Your task to perform on an android device: Open the calendar and show me this week's events? Image 0: 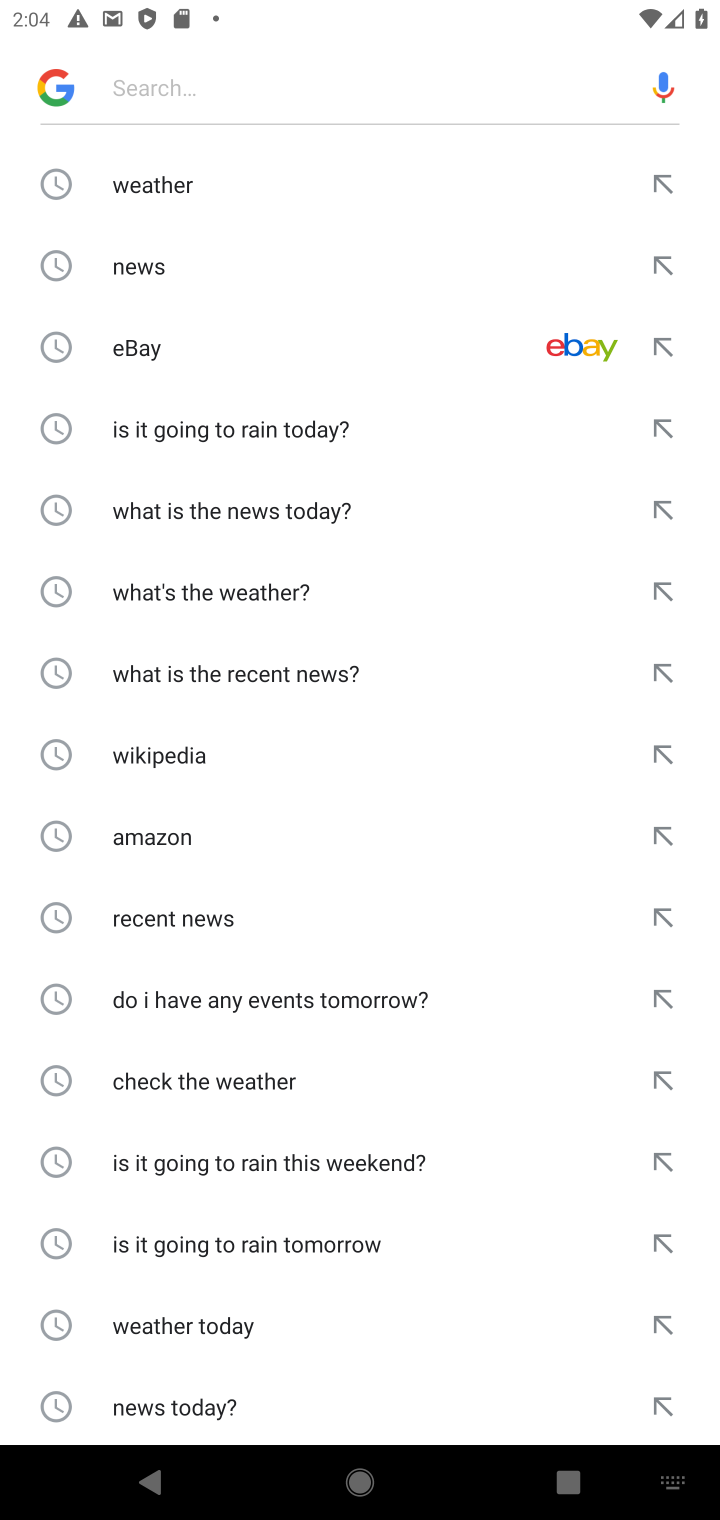
Step 0: press home button
Your task to perform on an android device: Open the calendar and show me this week's events? Image 1: 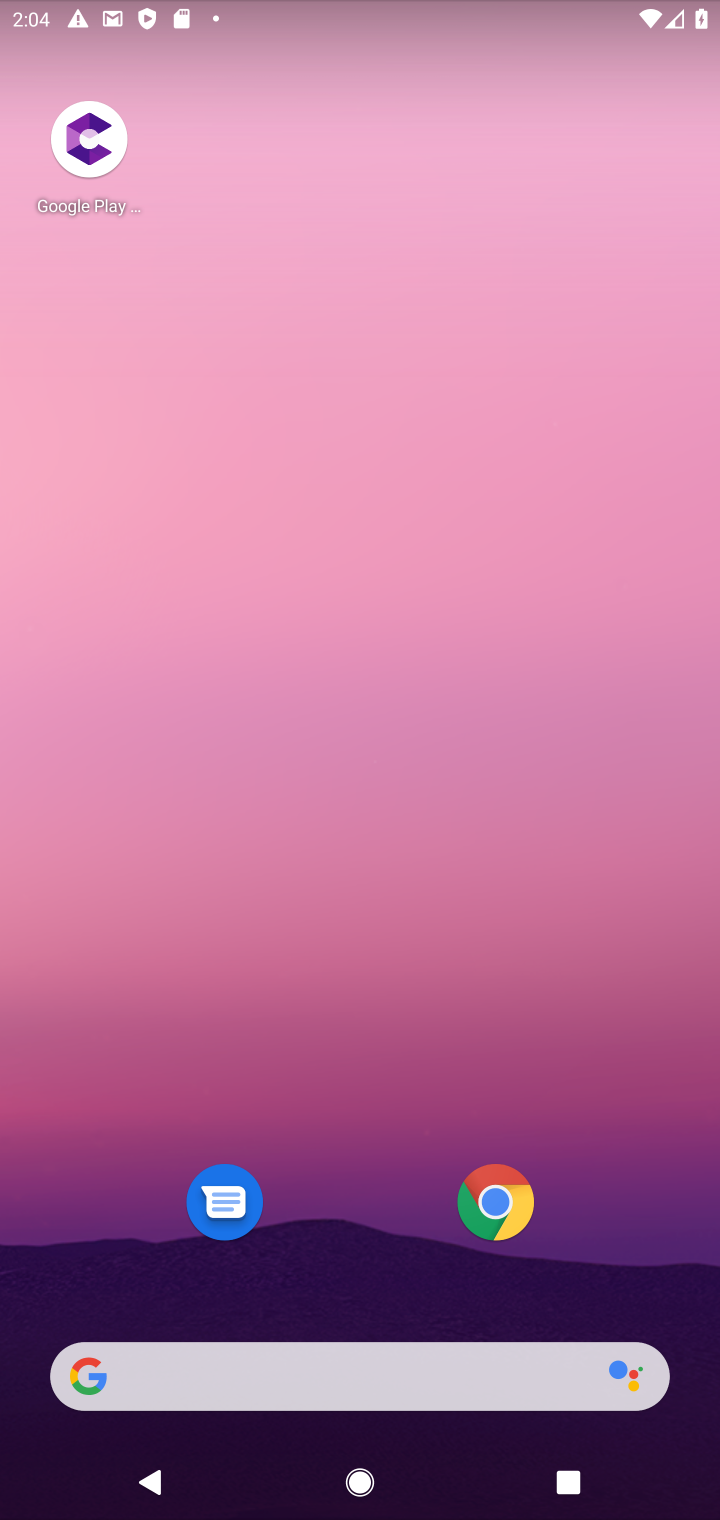
Step 1: drag from (328, 952) to (366, 6)
Your task to perform on an android device: Open the calendar and show me this week's events? Image 2: 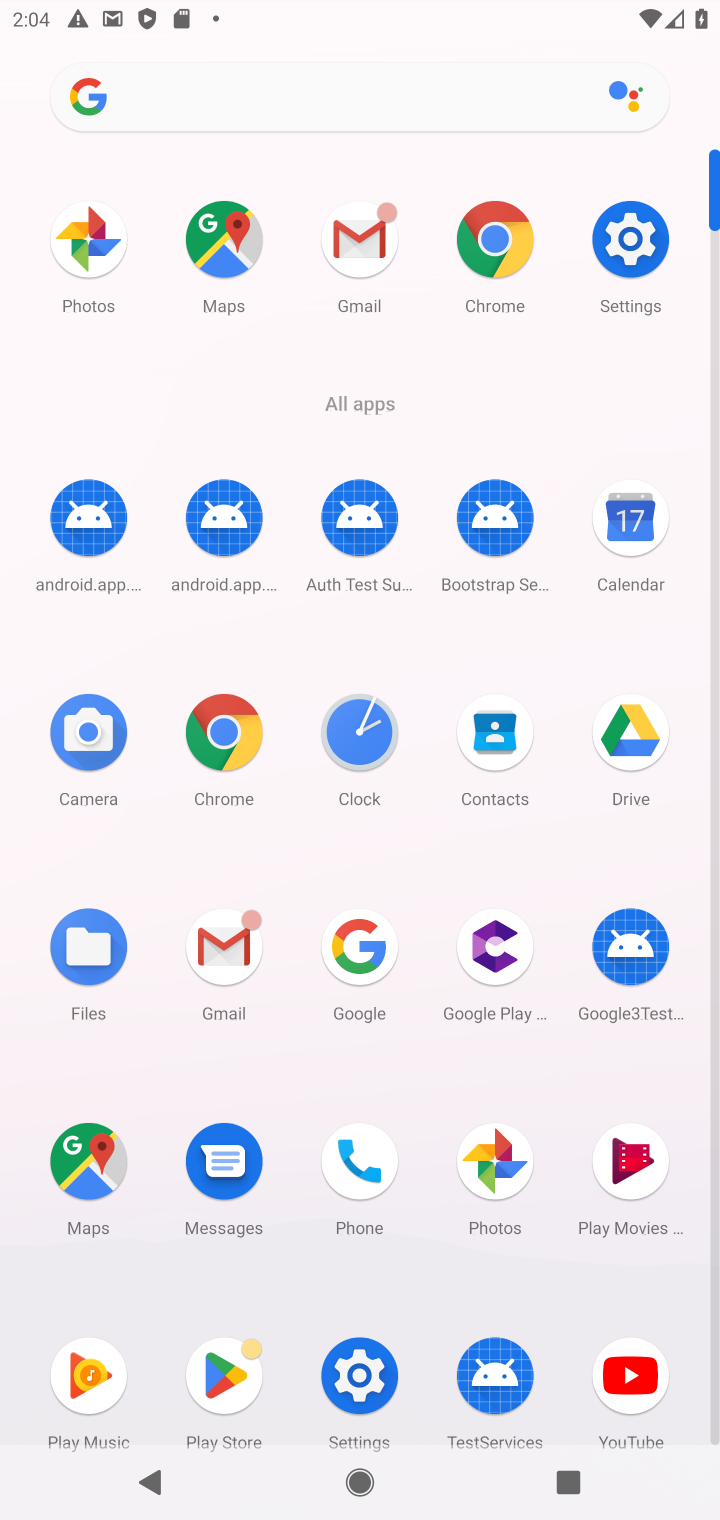
Step 2: click (642, 556)
Your task to perform on an android device: Open the calendar and show me this week's events? Image 3: 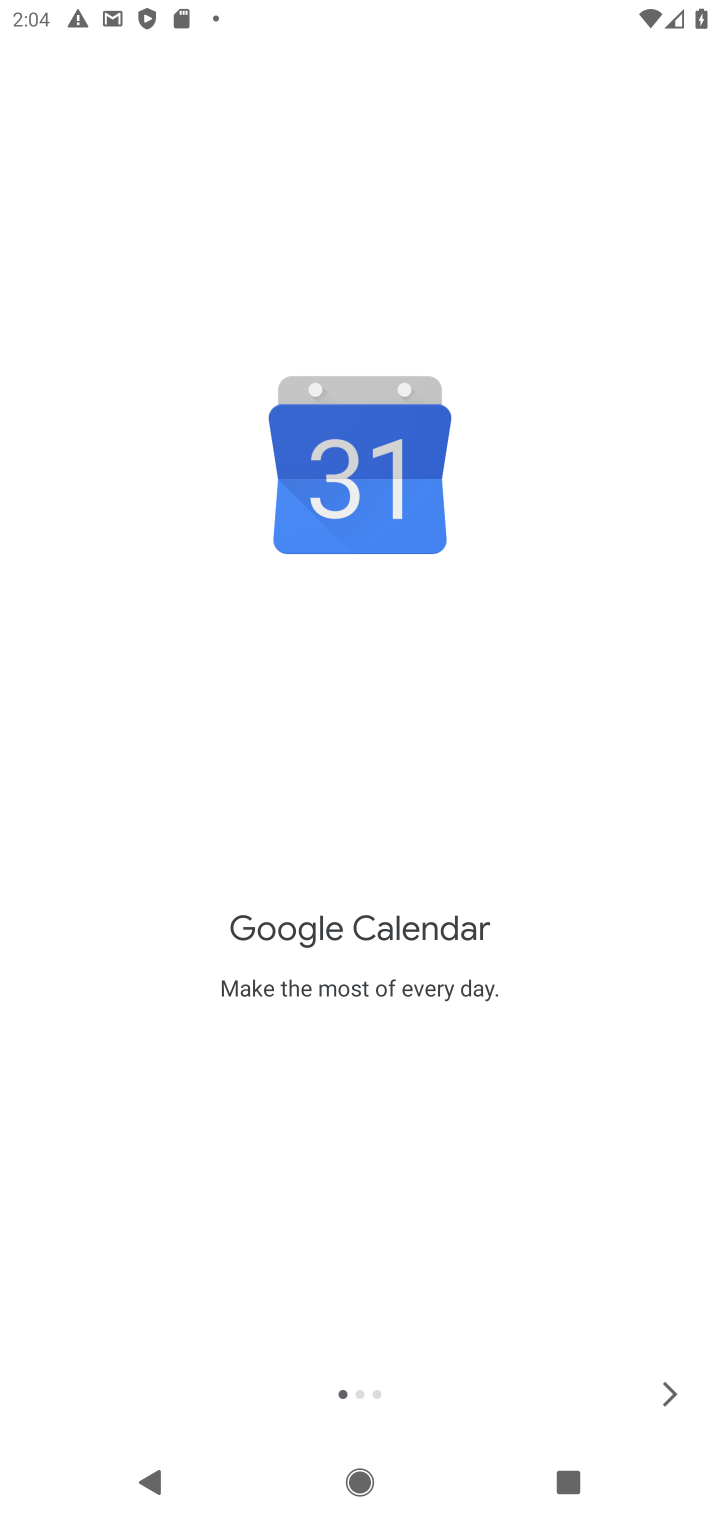
Step 3: click (637, 554)
Your task to perform on an android device: Open the calendar and show me this week's events? Image 4: 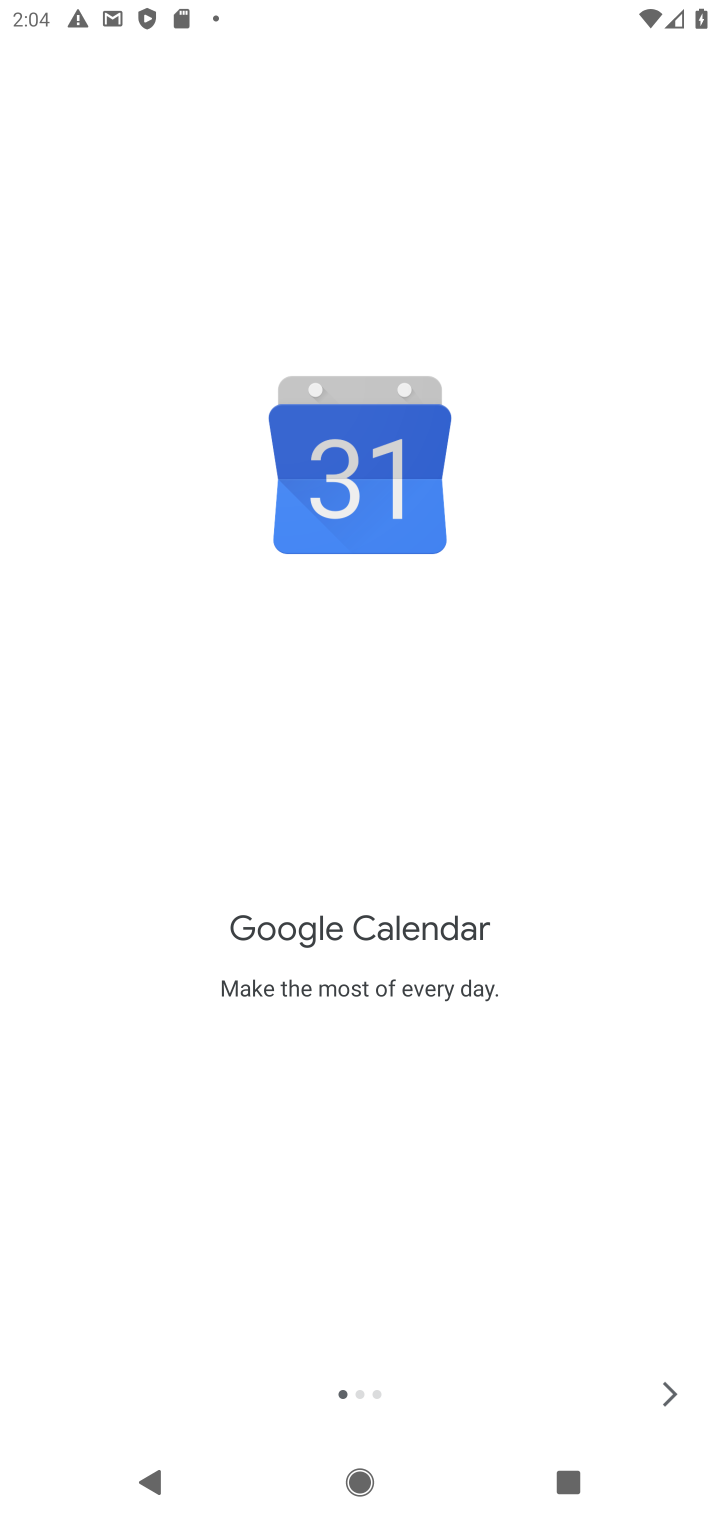
Step 4: click (657, 1366)
Your task to perform on an android device: Open the calendar and show me this week's events? Image 5: 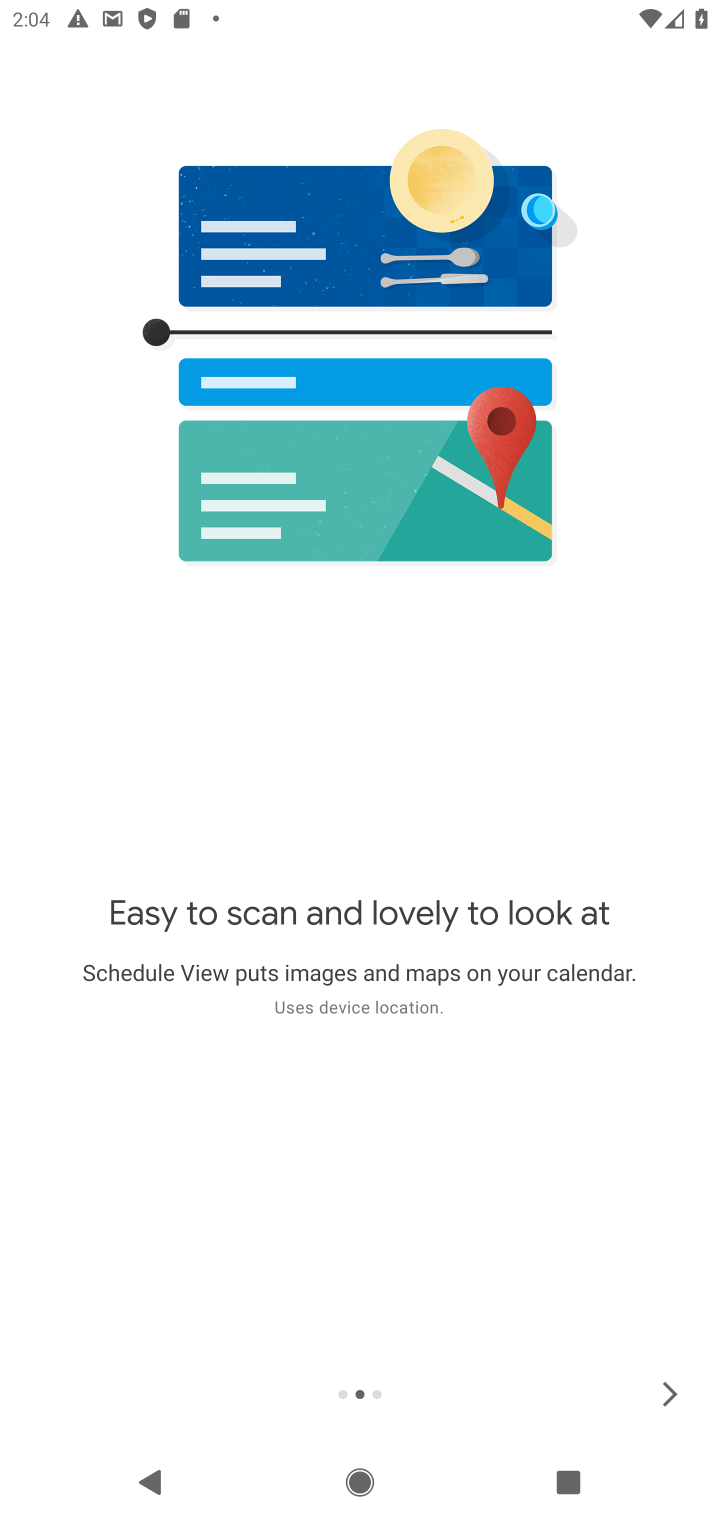
Step 5: click (650, 1373)
Your task to perform on an android device: Open the calendar and show me this week's events? Image 6: 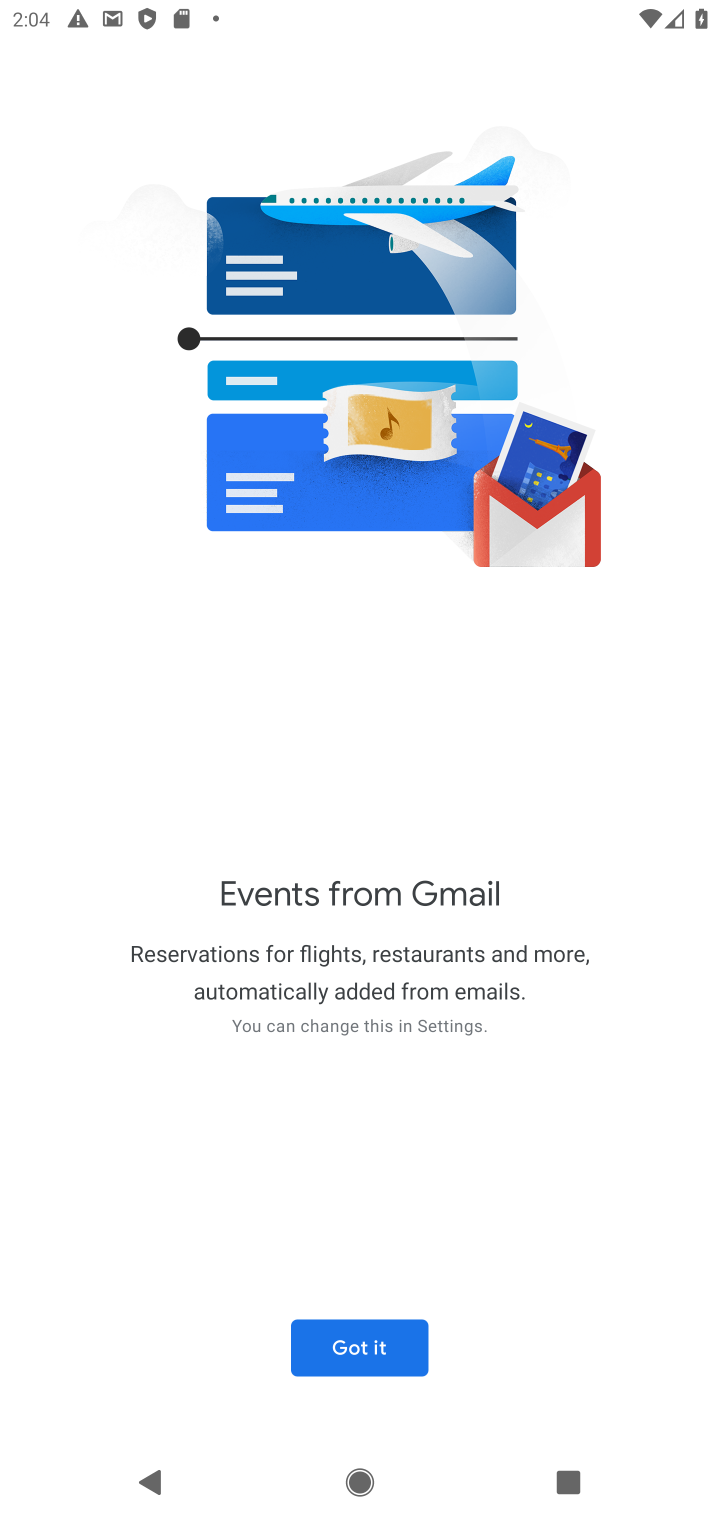
Step 6: click (394, 1351)
Your task to perform on an android device: Open the calendar and show me this week's events? Image 7: 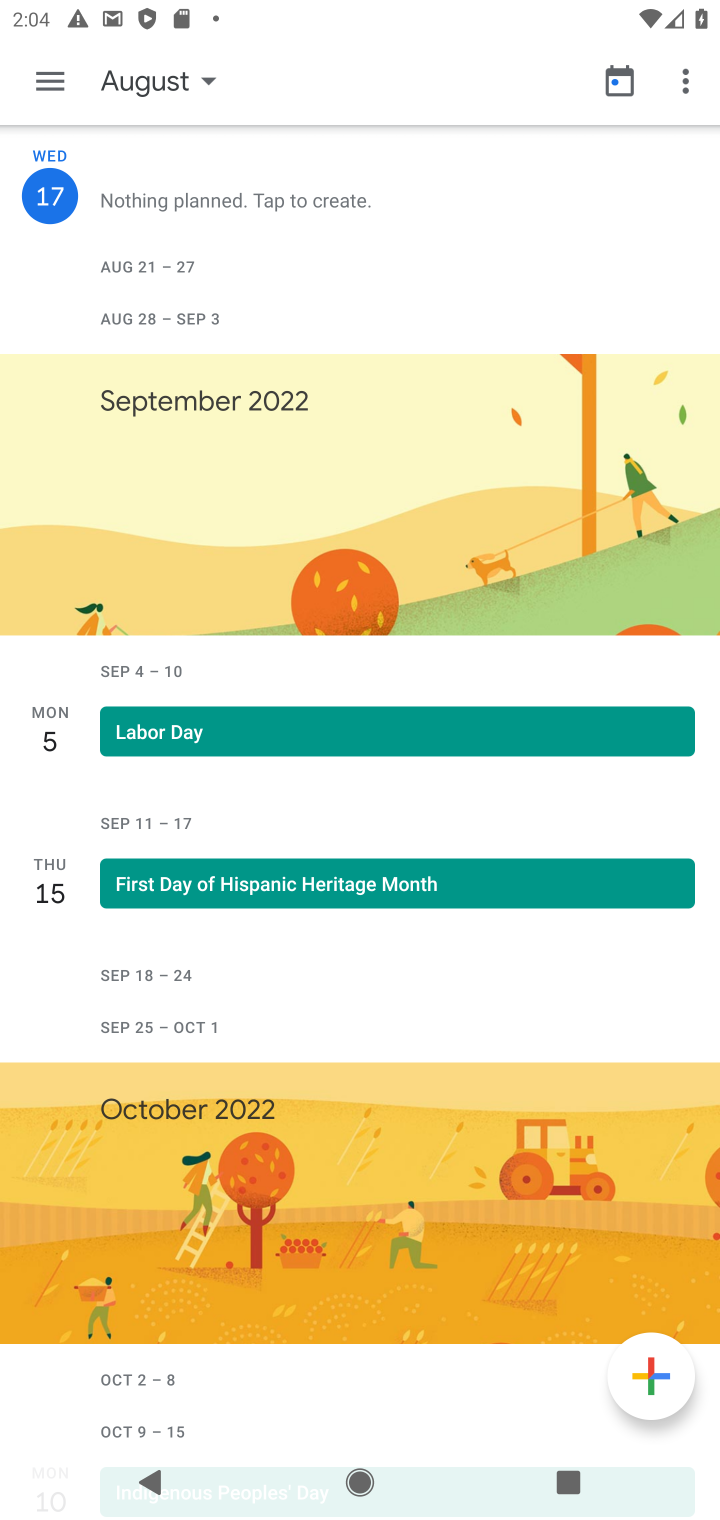
Step 7: click (47, 74)
Your task to perform on an android device: Open the calendar and show me this week's events? Image 8: 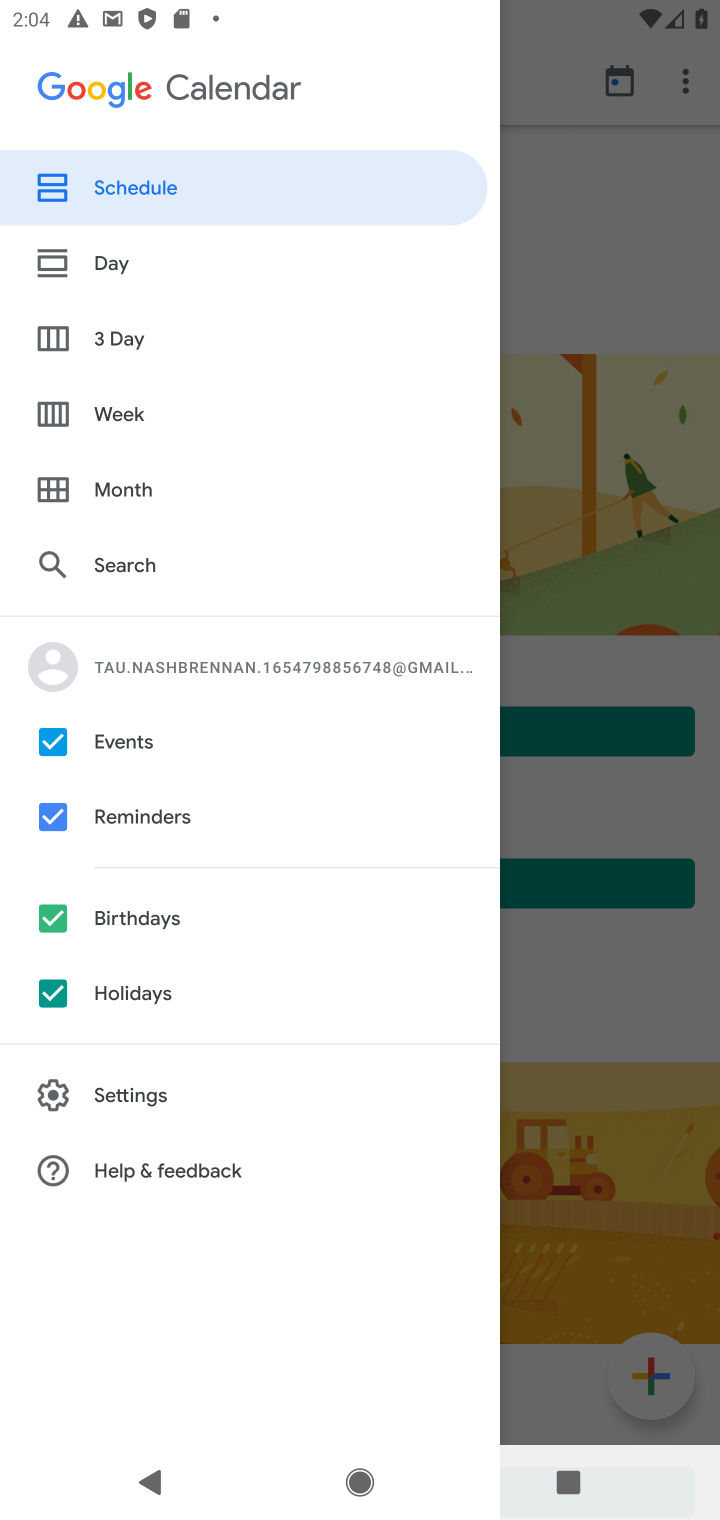
Step 8: click (106, 805)
Your task to perform on an android device: Open the calendar and show me this week's events? Image 9: 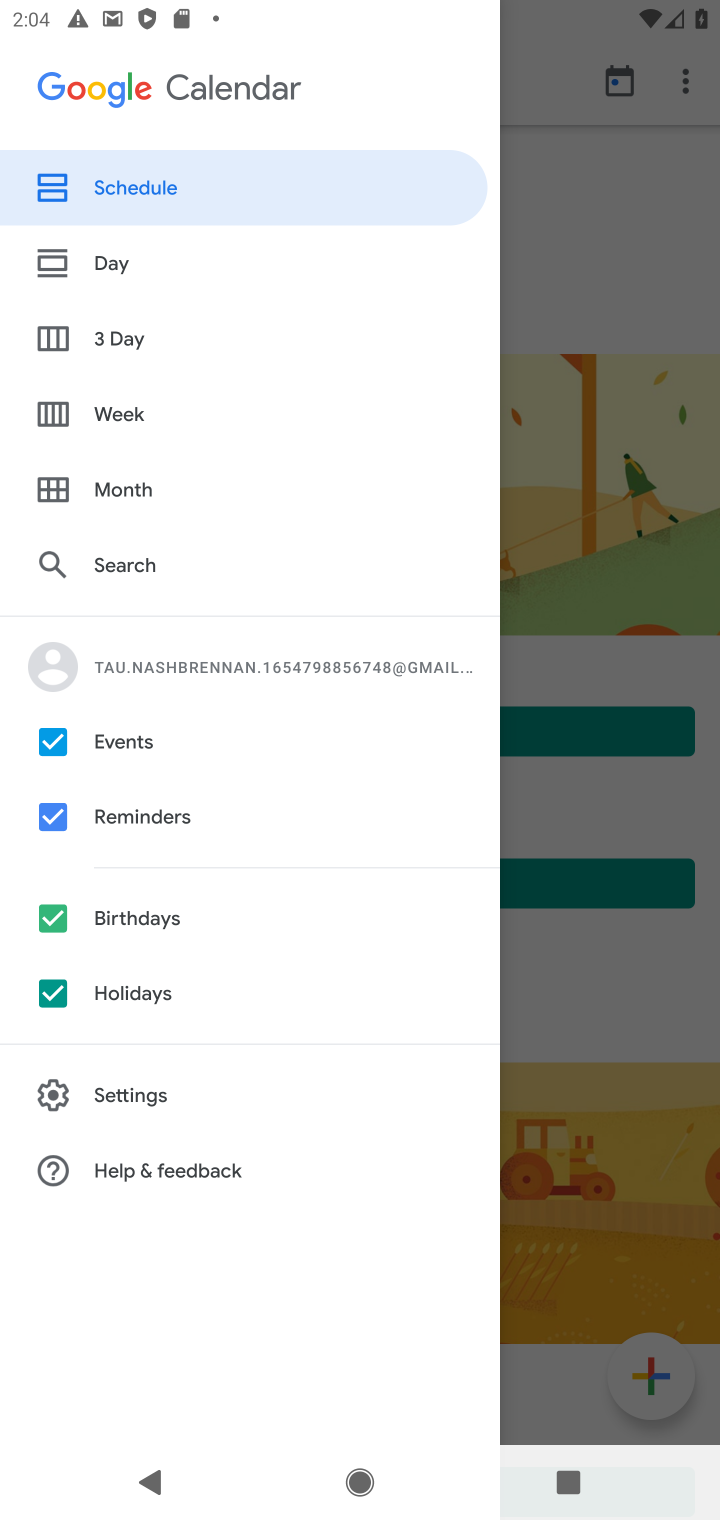
Step 9: click (138, 917)
Your task to perform on an android device: Open the calendar and show me this week's events? Image 10: 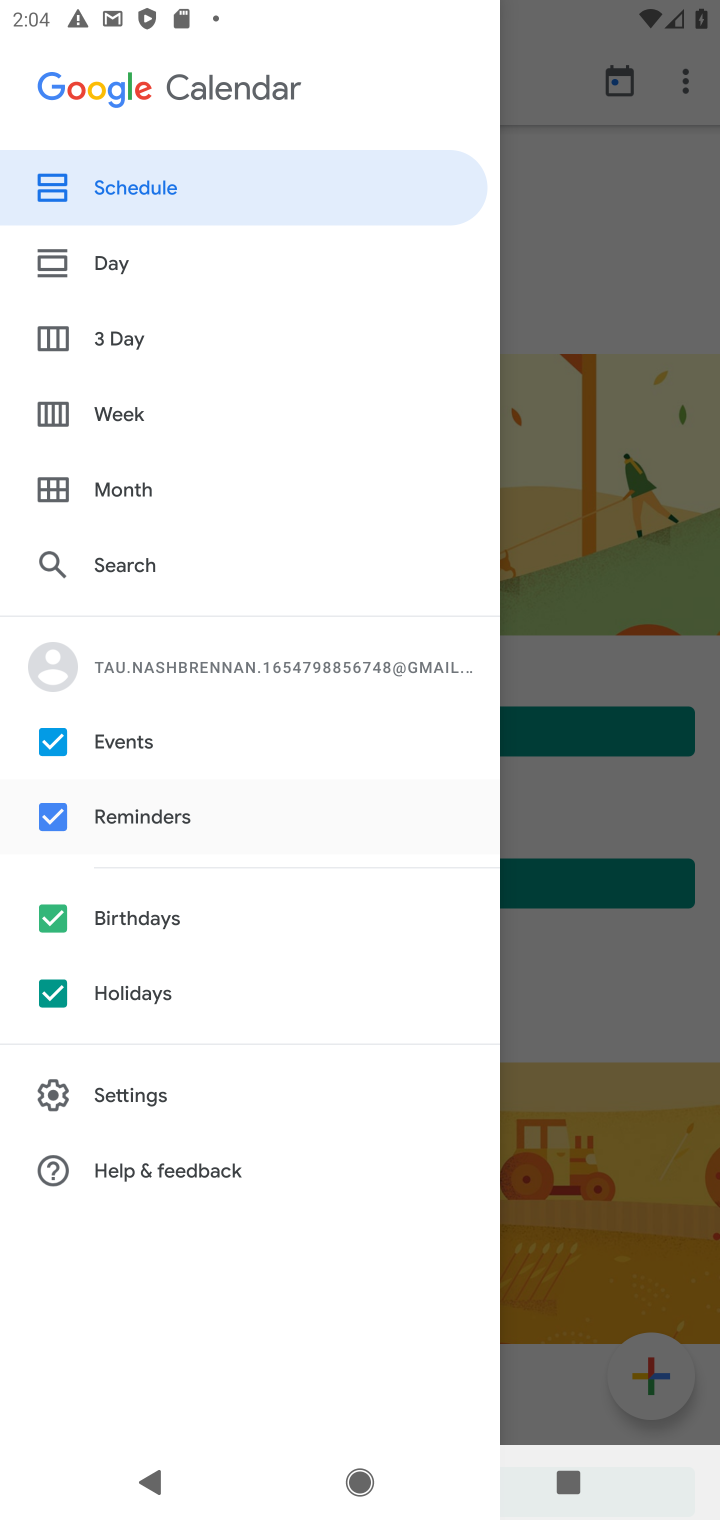
Step 10: click (135, 989)
Your task to perform on an android device: Open the calendar and show me this week's events? Image 11: 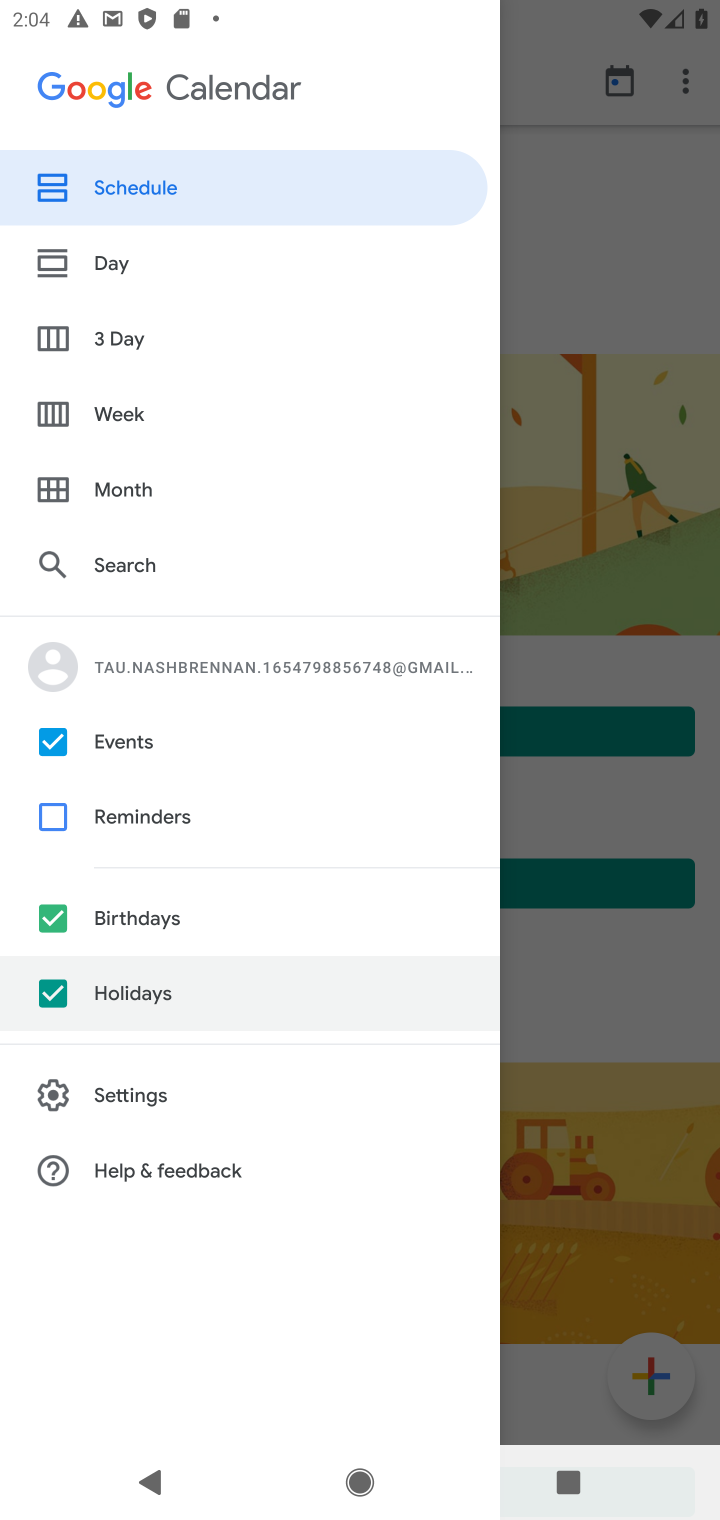
Step 11: click (142, 424)
Your task to perform on an android device: Open the calendar and show me this week's events? Image 12: 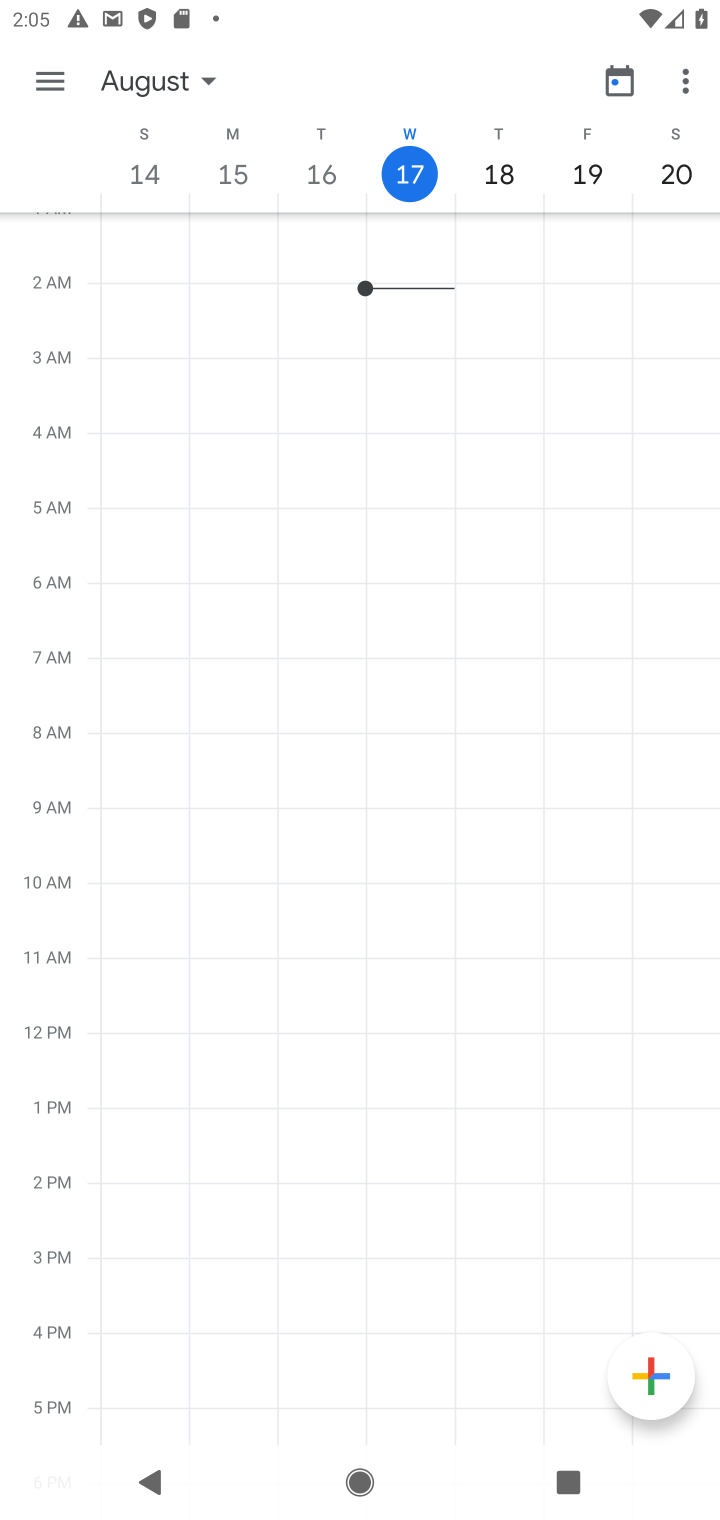
Step 12: task complete